Your task to perform on an android device: turn off notifications settings in the gmail app Image 0: 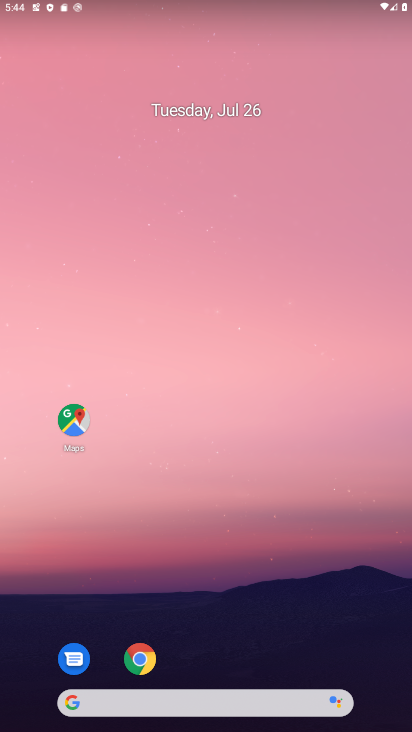
Step 0: drag from (193, 600) to (225, 50)
Your task to perform on an android device: turn off notifications settings in the gmail app Image 1: 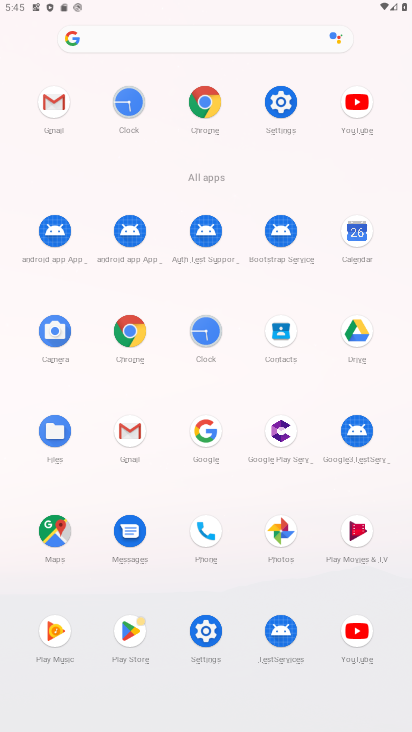
Step 1: click (133, 443)
Your task to perform on an android device: turn off notifications settings in the gmail app Image 2: 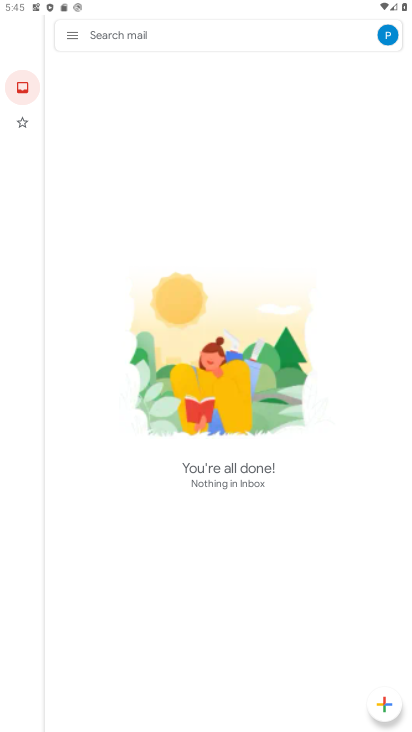
Step 2: task complete